Your task to perform on an android device: make emails show in primary in the gmail app Image 0: 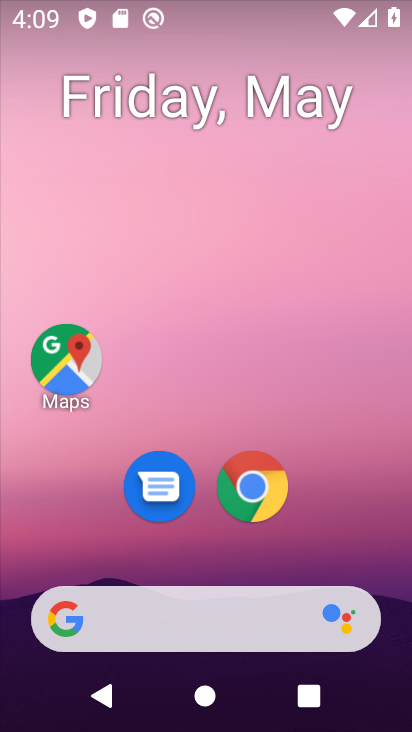
Step 0: drag from (361, 544) to (288, 23)
Your task to perform on an android device: make emails show in primary in the gmail app Image 1: 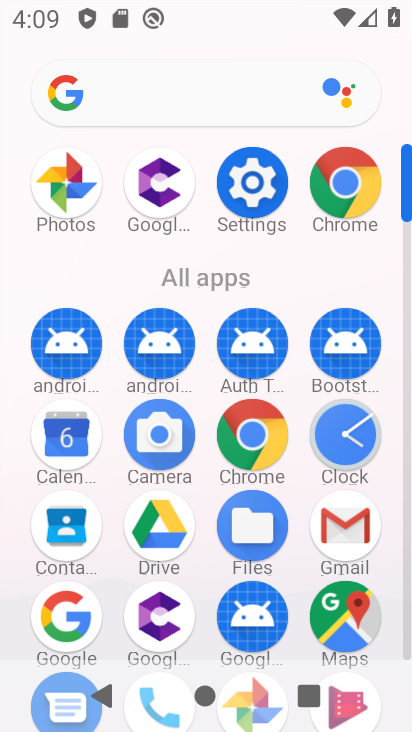
Step 1: click (345, 523)
Your task to perform on an android device: make emails show in primary in the gmail app Image 2: 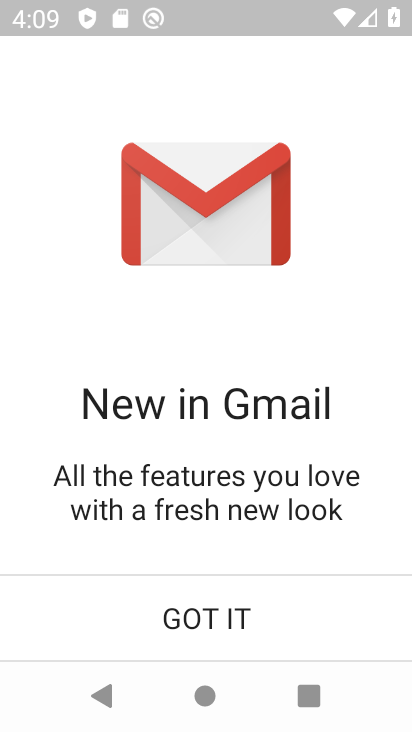
Step 2: click (237, 614)
Your task to perform on an android device: make emails show in primary in the gmail app Image 3: 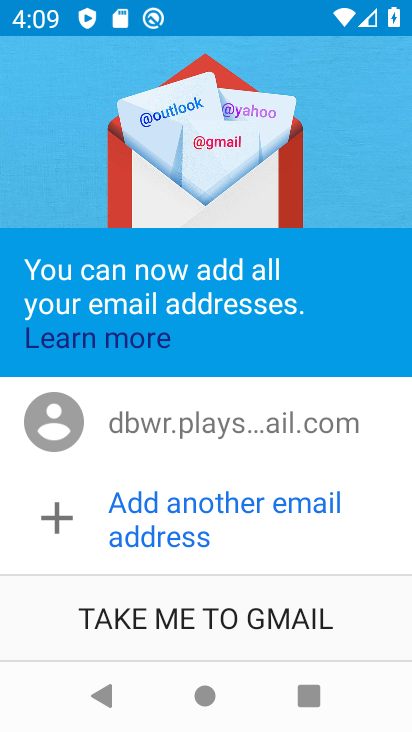
Step 3: click (228, 624)
Your task to perform on an android device: make emails show in primary in the gmail app Image 4: 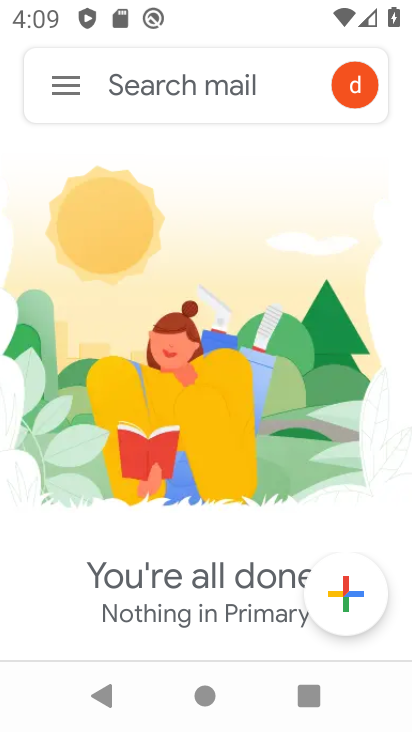
Step 4: click (54, 91)
Your task to perform on an android device: make emails show in primary in the gmail app Image 5: 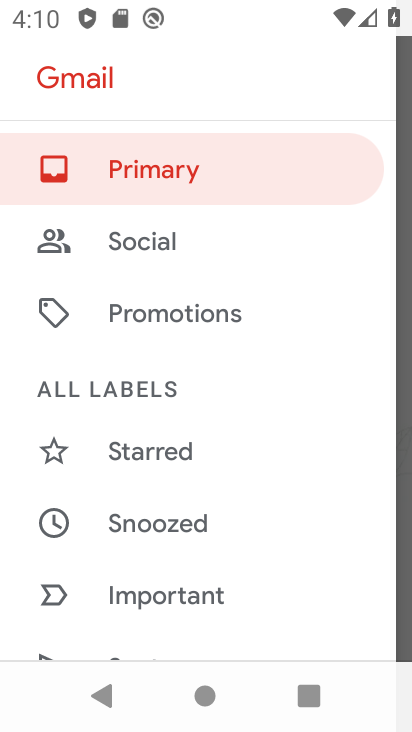
Step 5: drag from (248, 551) to (211, 87)
Your task to perform on an android device: make emails show in primary in the gmail app Image 6: 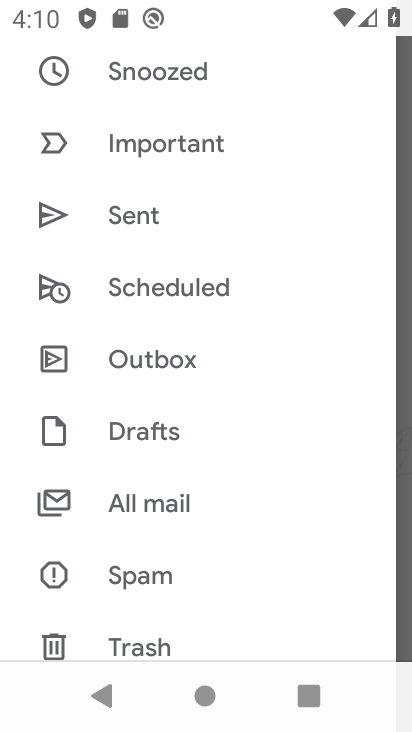
Step 6: drag from (202, 675) to (211, 121)
Your task to perform on an android device: make emails show in primary in the gmail app Image 7: 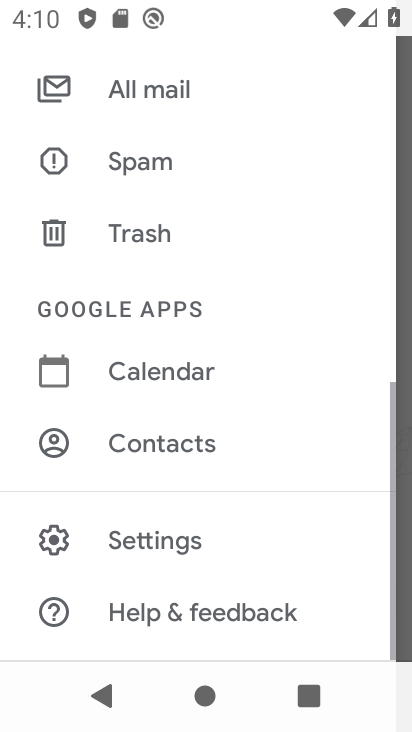
Step 7: click (164, 546)
Your task to perform on an android device: make emails show in primary in the gmail app Image 8: 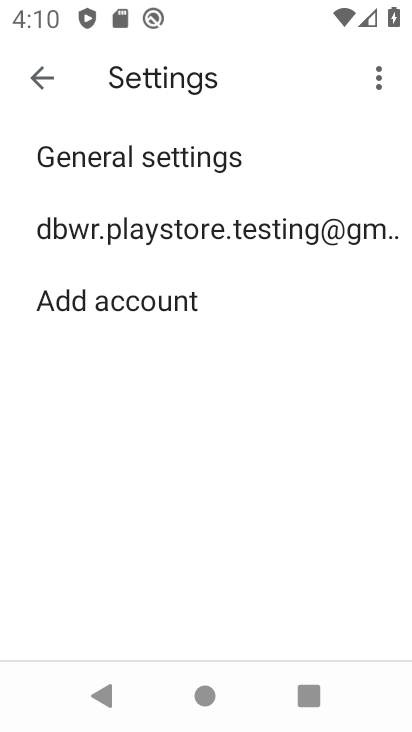
Step 8: click (170, 231)
Your task to perform on an android device: make emails show in primary in the gmail app Image 9: 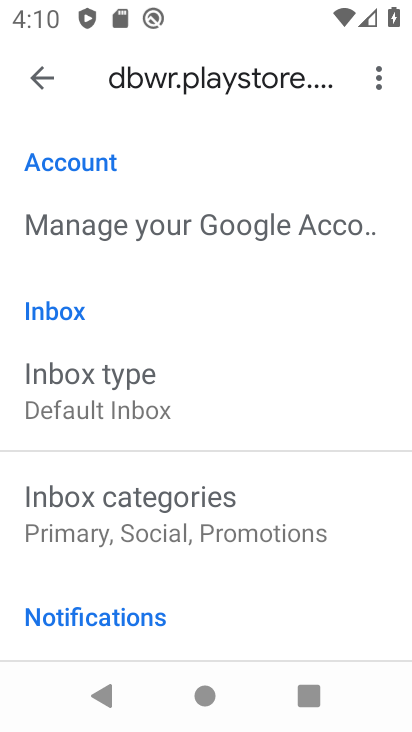
Step 9: click (153, 387)
Your task to perform on an android device: make emails show in primary in the gmail app Image 10: 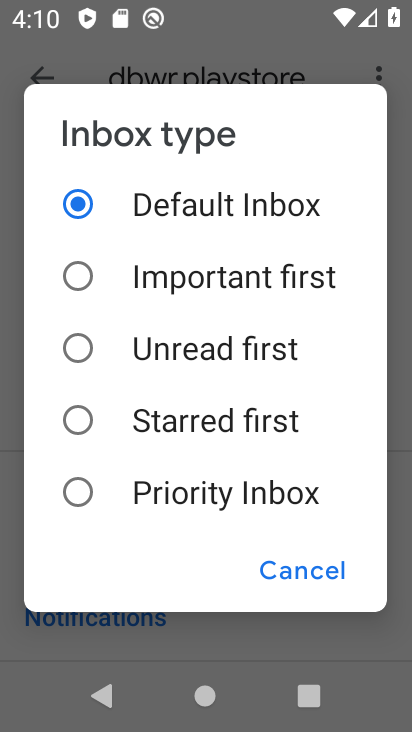
Step 10: click (314, 574)
Your task to perform on an android device: make emails show in primary in the gmail app Image 11: 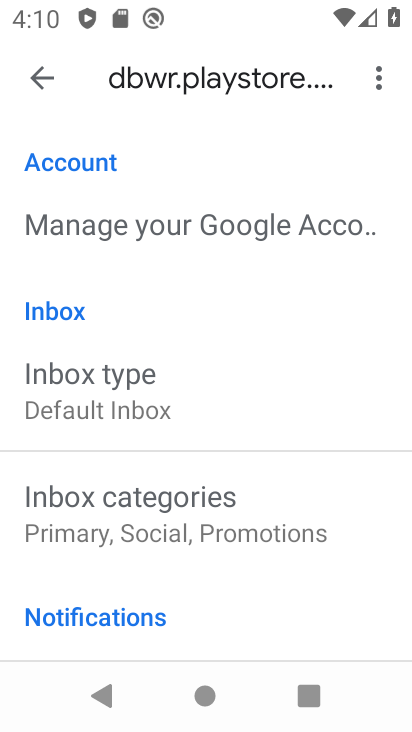
Step 11: click (236, 512)
Your task to perform on an android device: make emails show in primary in the gmail app Image 12: 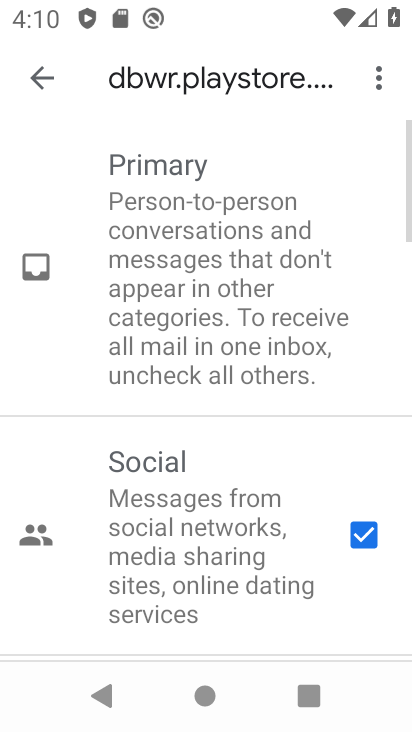
Step 12: click (371, 535)
Your task to perform on an android device: make emails show in primary in the gmail app Image 13: 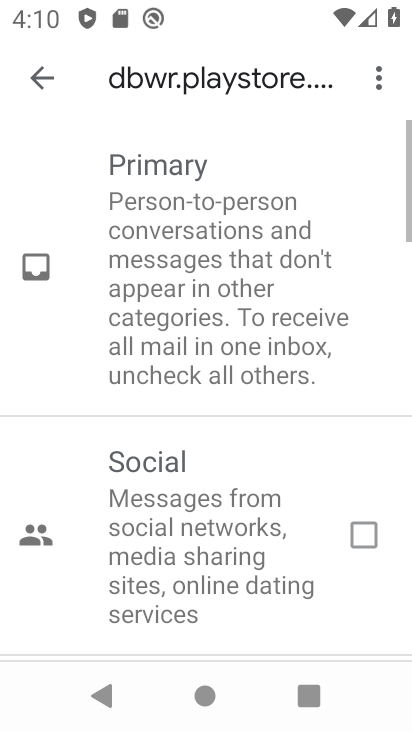
Step 13: drag from (246, 536) to (190, 103)
Your task to perform on an android device: make emails show in primary in the gmail app Image 14: 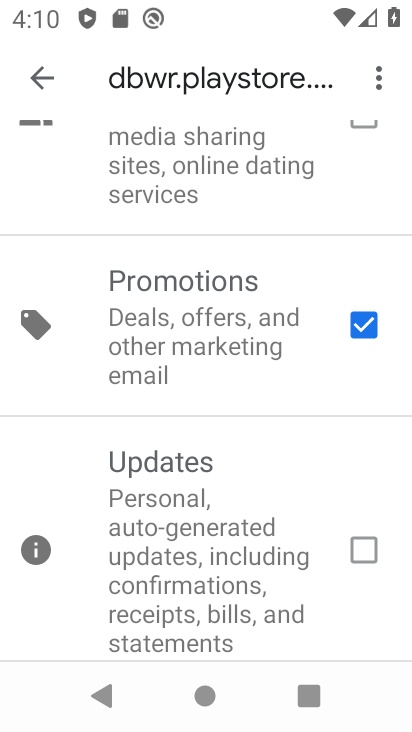
Step 14: click (359, 322)
Your task to perform on an android device: make emails show in primary in the gmail app Image 15: 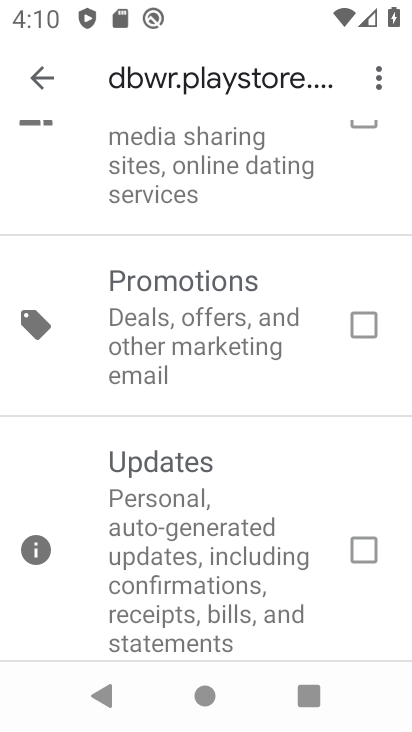
Step 15: click (33, 73)
Your task to perform on an android device: make emails show in primary in the gmail app Image 16: 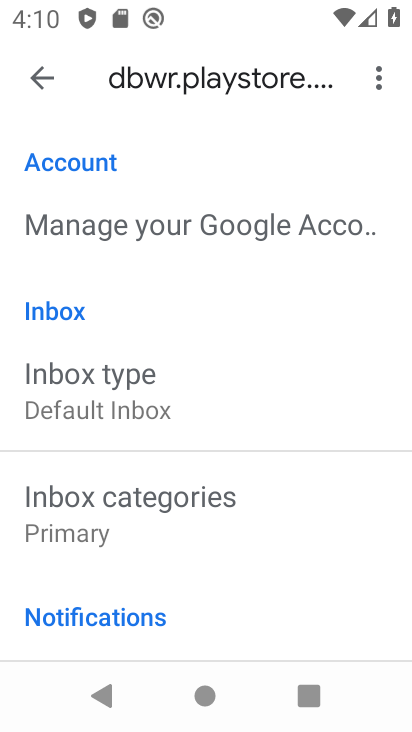
Step 16: task complete